Your task to perform on an android device: remove spam from my inbox in the gmail app Image 0: 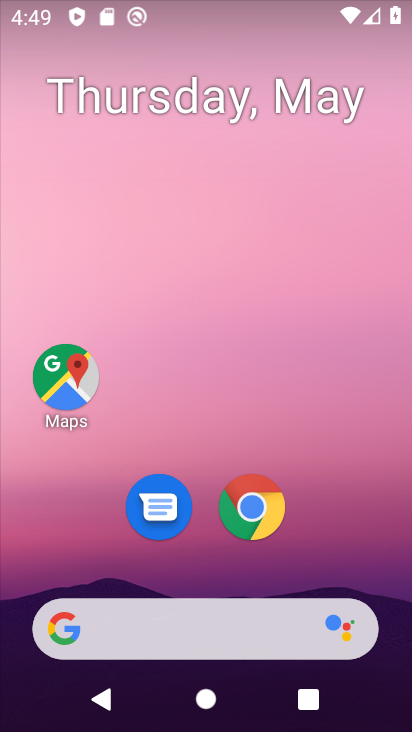
Step 0: drag from (324, 479) to (329, 150)
Your task to perform on an android device: remove spam from my inbox in the gmail app Image 1: 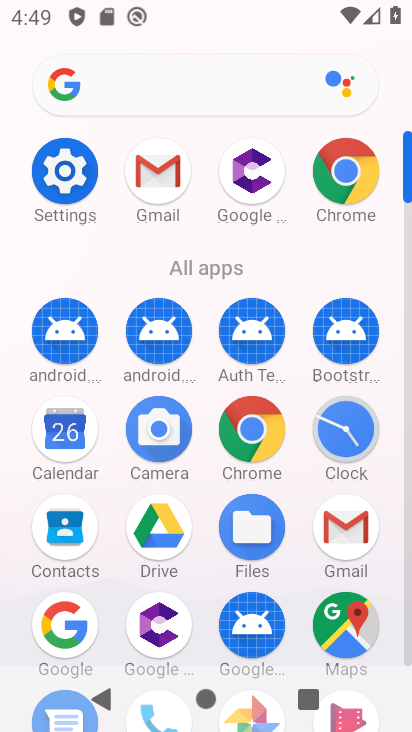
Step 1: click (156, 163)
Your task to perform on an android device: remove spam from my inbox in the gmail app Image 2: 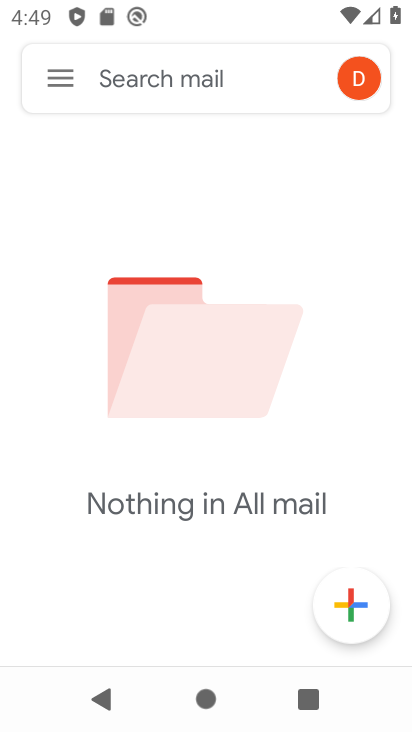
Step 2: click (64, 83)
Your task to perform on an android device: remove spam from my inbox in the gmail app Image 3: 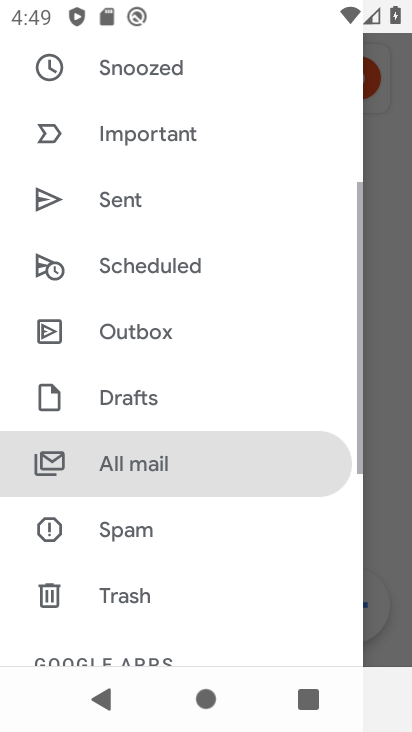
Step 3: drag from (86, 135) to (58, 722)
Your task to perform on an android device: remove spam from my inbox in the gmail app Image 4: 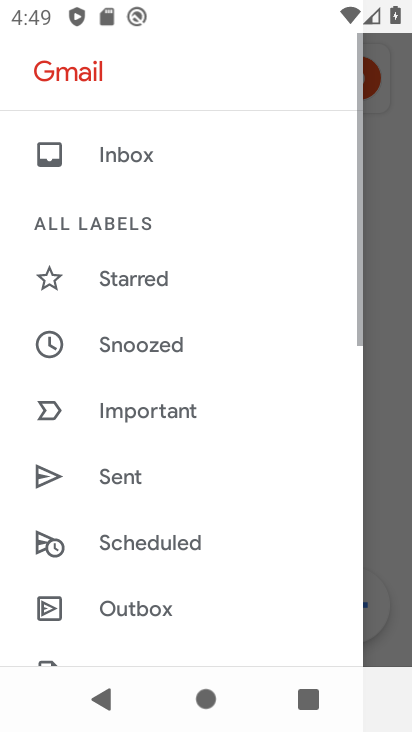
Step 4: click (162, 157)
Your task to perform on an android device: remove spam from my inbox in the gmail app Image 5: 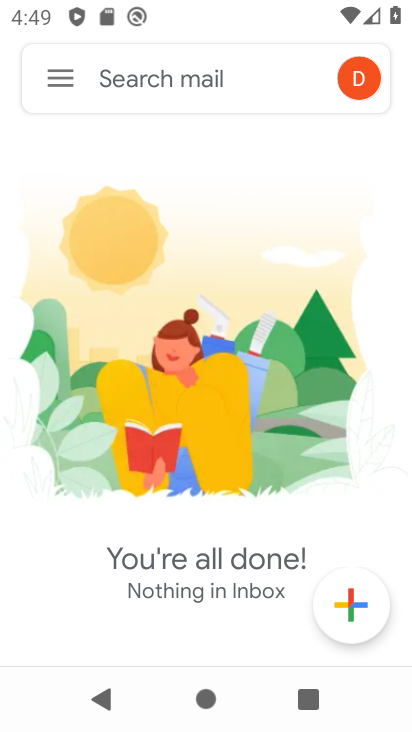
Step 5: task complete